Your task to perform on an android device: Show me popular games on the Play Store Image 0: 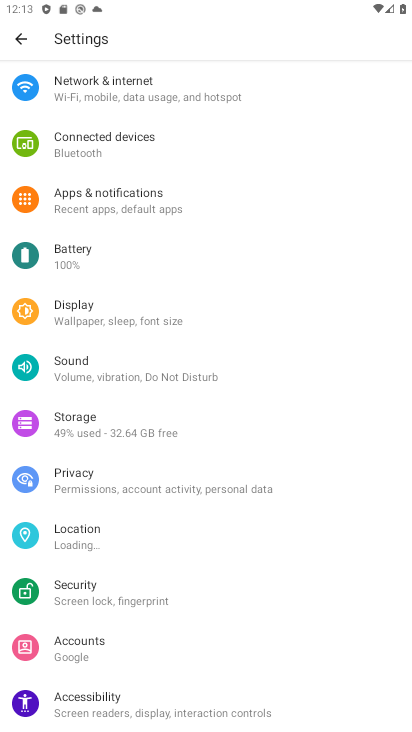
Step 0: press home button
Your task to perform on an android device: Show me popular games on the Play Store Image 1: 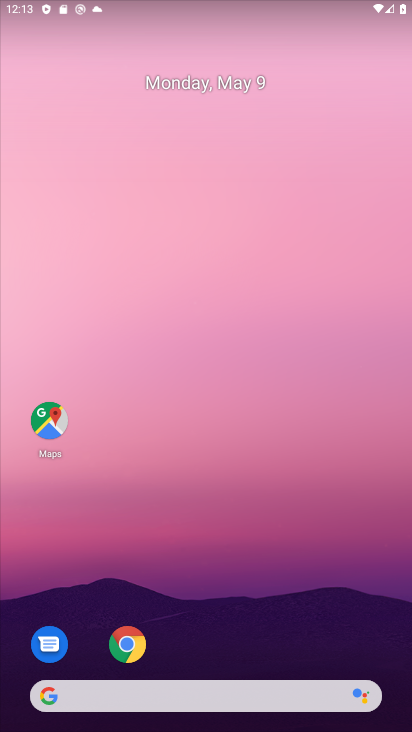
Step 1: drag from (286, 598) to (98, 195)
Your task to perform on an android device: Show me popular games on the Play Store Image 2: 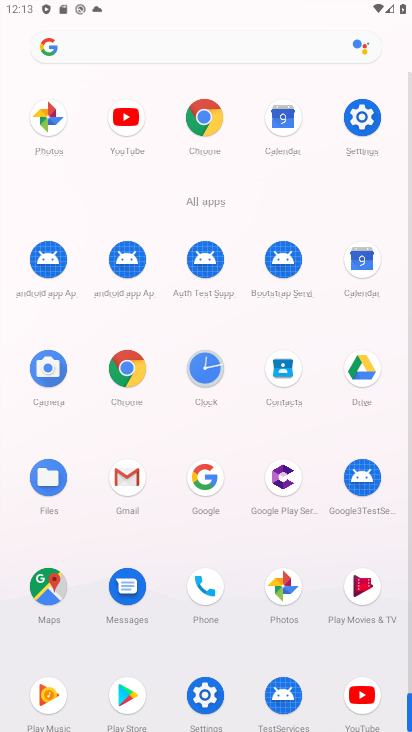
Step 2: click (132, 685)
Your task to perform on an android device: Show me popular games on the Play Store Image 3: 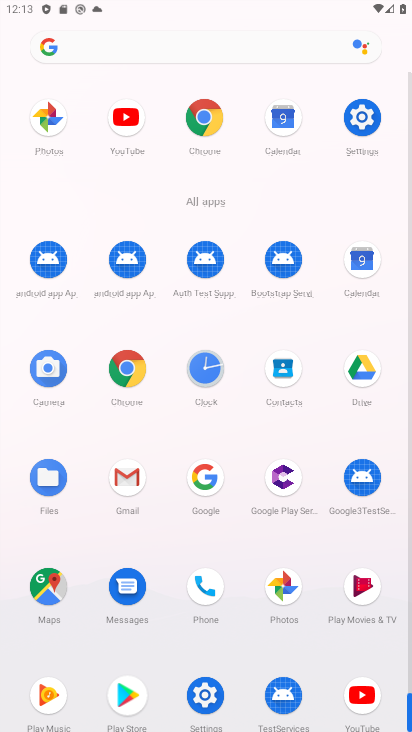
Step 3: click (132, 685)
Your task to perform on an android device: Show me popular games on the Play Store Image 4: 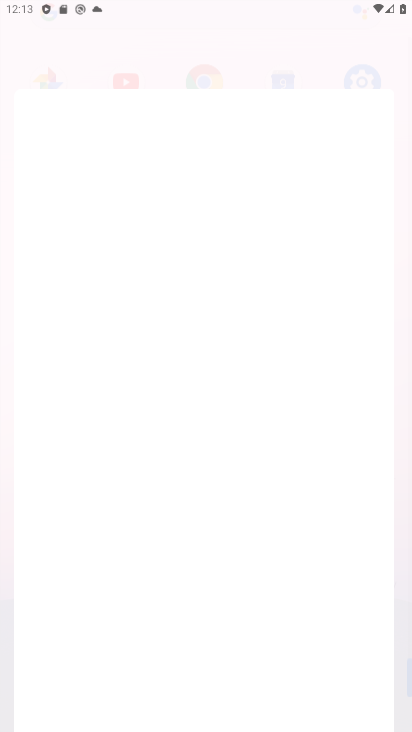
Step 4: click (131, 685)
Your task to perform on an android device: Show me popular games on the Play Store Image 5: 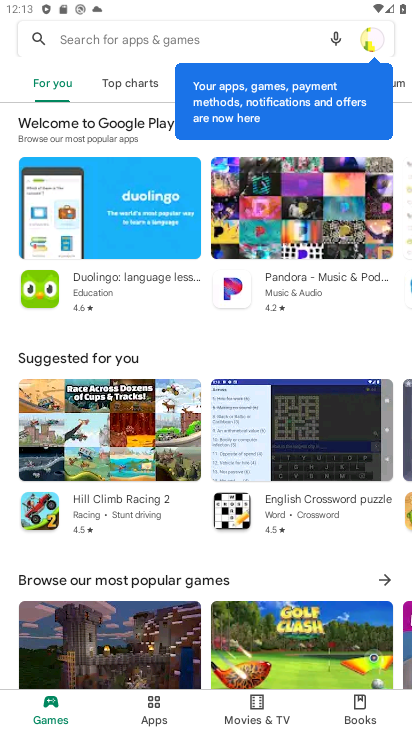
Step 5: click (76, 31)
Your task to perform on an android device: Show me popular games on the Play Store Image 6: 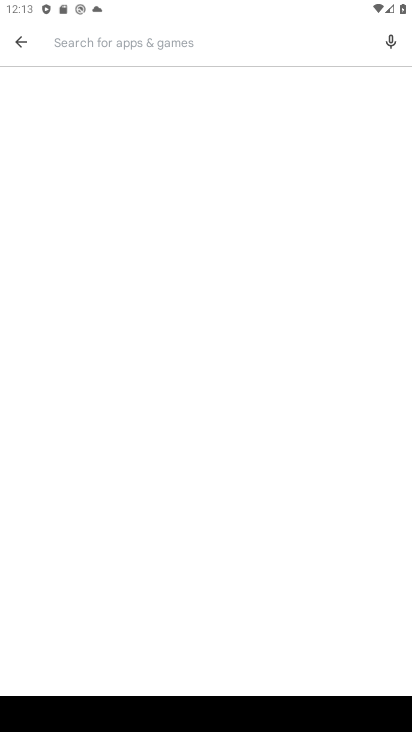
Step 6: type "popular games"
Your task to perform on an android device: Show me popular games on the Play Store Image 7: 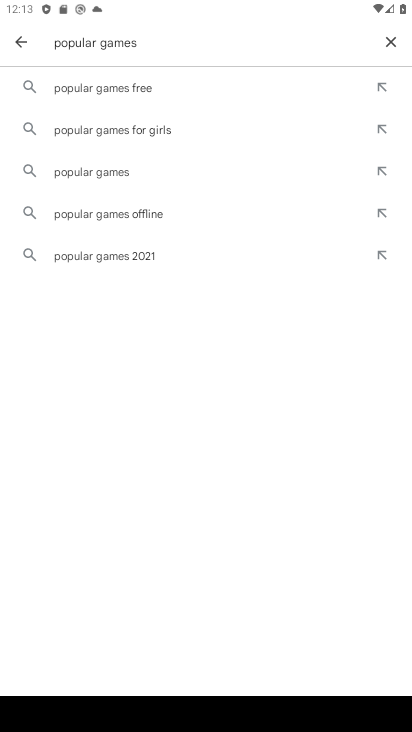
Step 7: click (112, 89)
Your task to perform on an android device: Show me popular games on the Play Store Image 8: 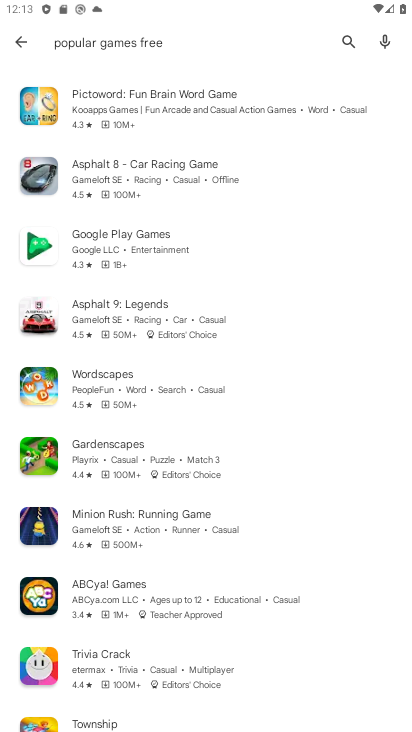
Step 8: task complete